Your task to perform on an android device: turn off notifications in google photos Image 0: 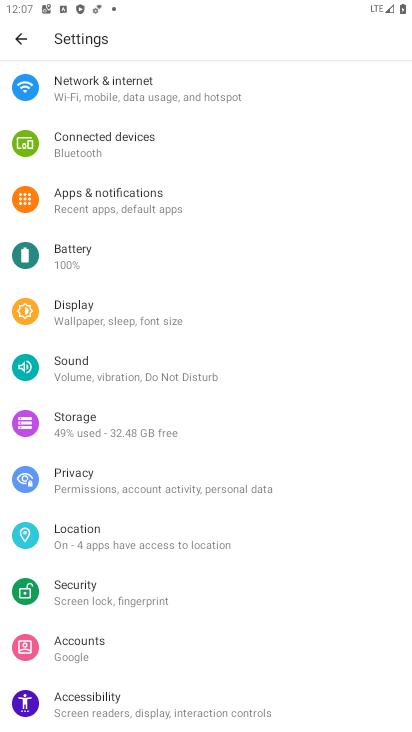
Step 0: press home button
Your task to perform on an android device: turn off notifications in google photos Image 1: 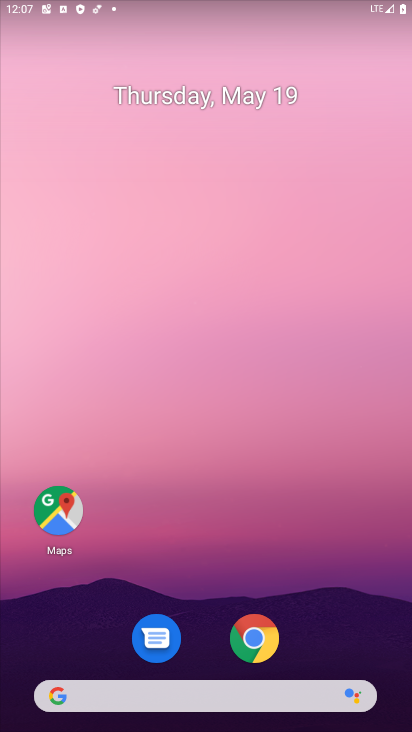
Step 1: drag from (326, 657) to (270, 67)
Your task to perform on an android device: turn off notifications in google photos Image 2: 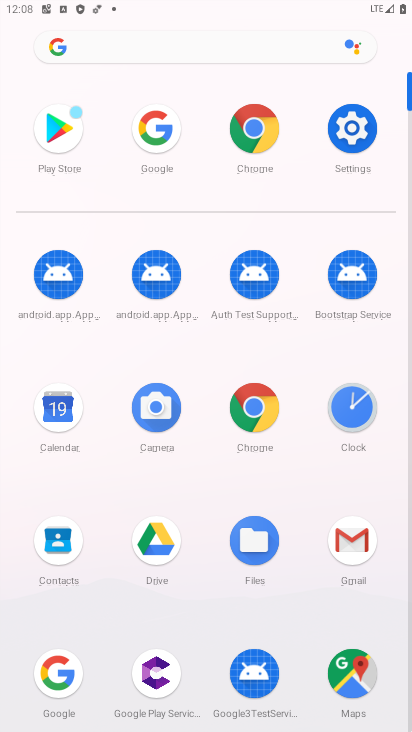
Step 2: drag from (198, 679) to (184, 92)
Your task to perform on an android device: turn off notifications in google photos Image 3: 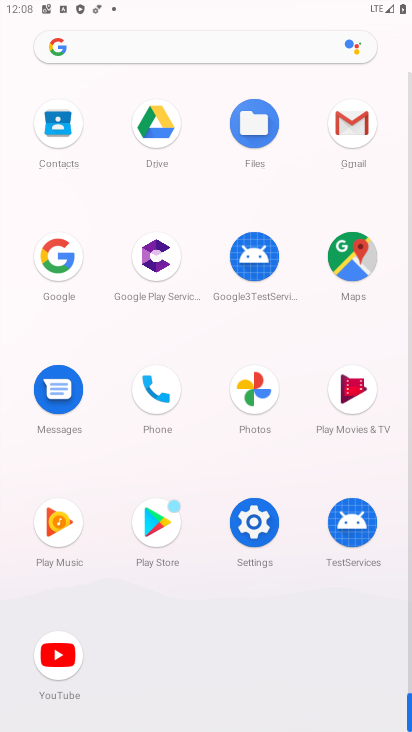
Step 3: click (257, 402)
Your task to perform on an android device: turn off notifications in google photos Image 4: 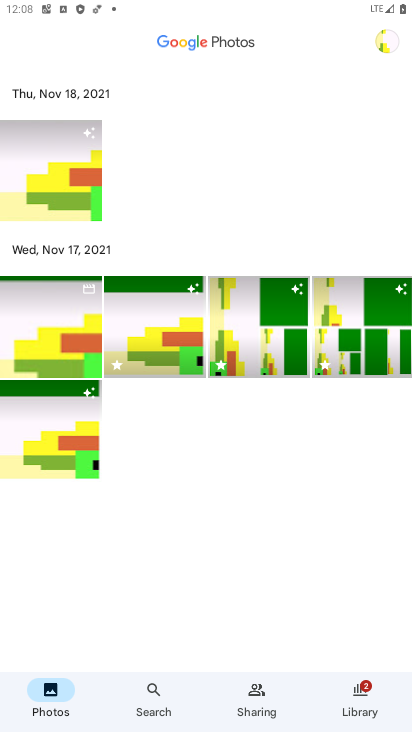
Step 4: click (385, 48)
Your task to perform on an android device: turn off notifications in google photos Image 5: 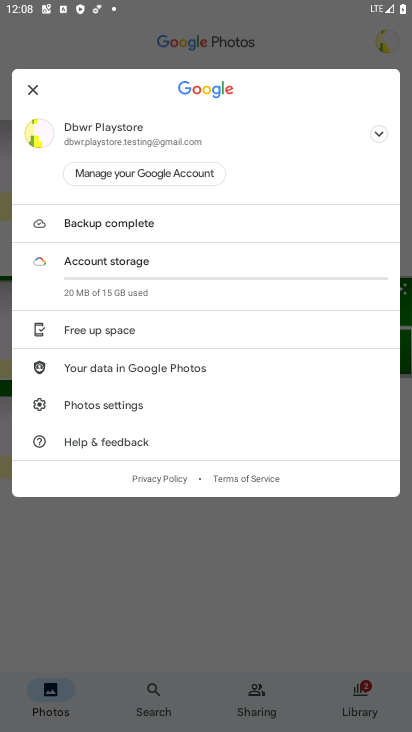
Step 5: click (115, 406)
Your task to perform on an android device: turn off notifications in google photos Image 6: 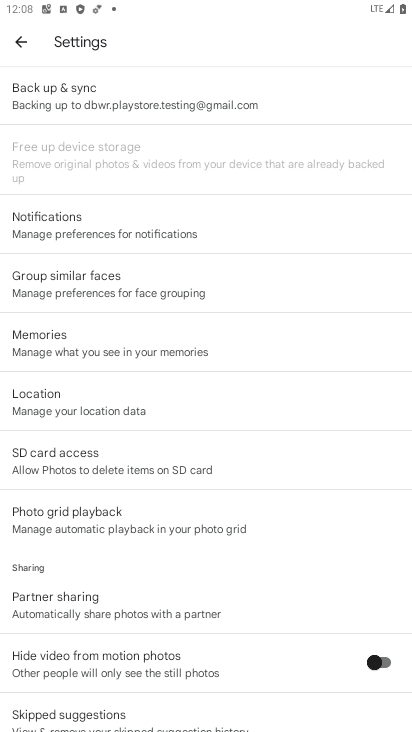
Step 6: click (149, 230)
Your task to perform on an android device: turn off notifications in google photos Image 7: 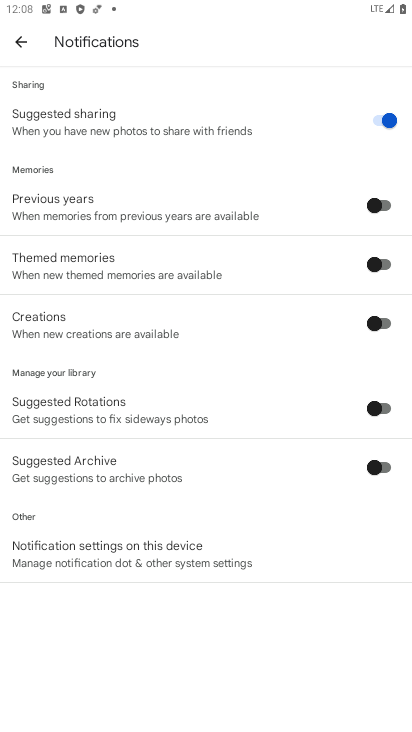
Step 7: task complete